Your task to perform on an android device: Play the last video I watched on Youtube Image 0: 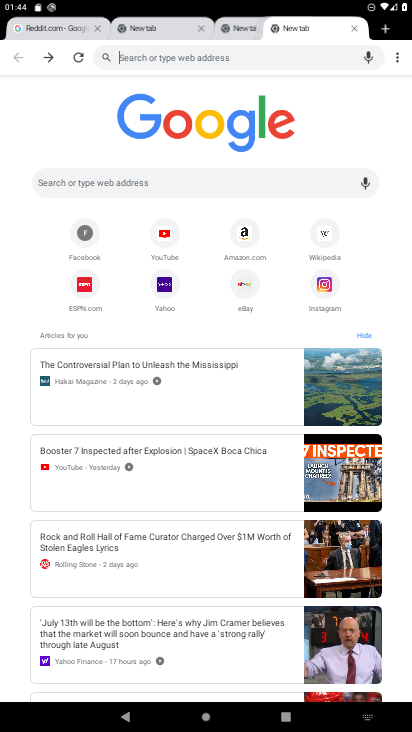
Step 0: press home button
Your task to perform on an android device: Play the last video I watched on Youtube Image 1: 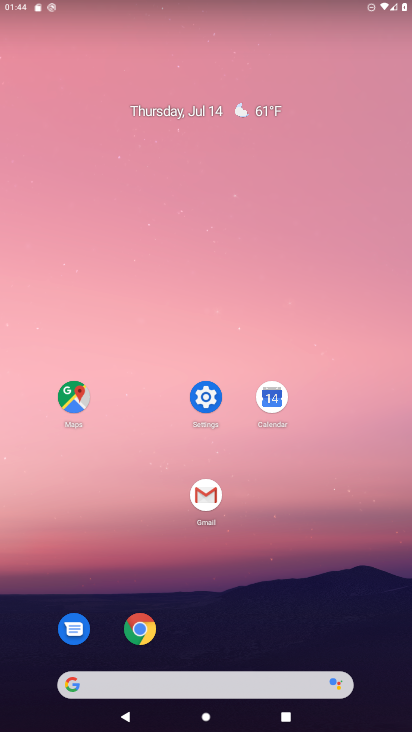
Step 1: drag from (383, 720) to (365, 155)
Your task to perform on an android device: Play the last video I watched on Youtube Image 2: 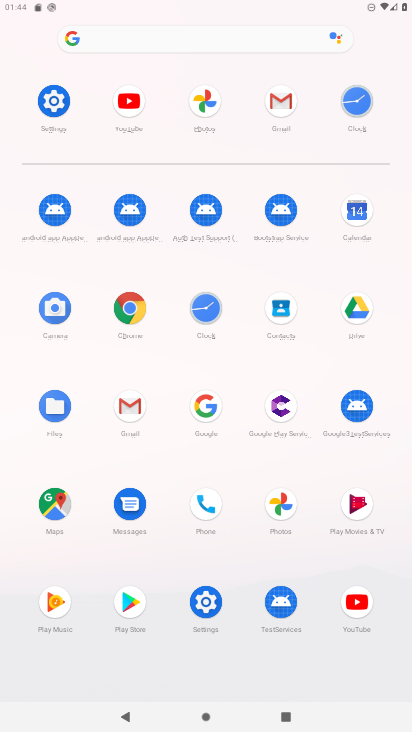
Step 2: click (350, 614)
Your task to perform on an android device: Play the last video I watched on Youtube Image 3: 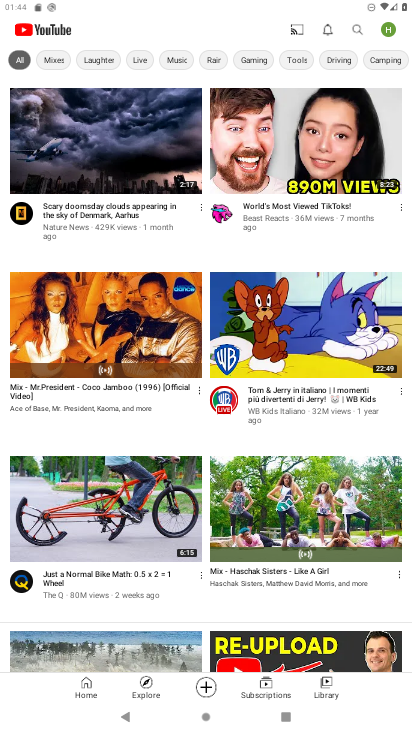
Step 3: drag from (283, 345) to (258, 511)
Your task to perform on an android device: Play the last video I watched on Youtube Image 4: 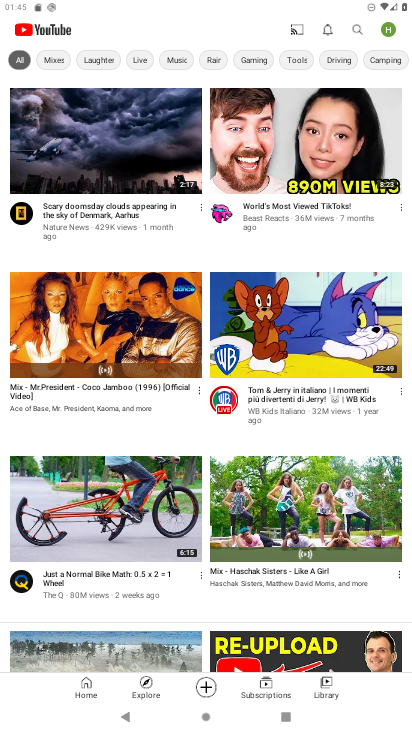
Step 4: click (317, 691)
Your task to perform on an android device: Play the last video I watched on Youtube Image 5: 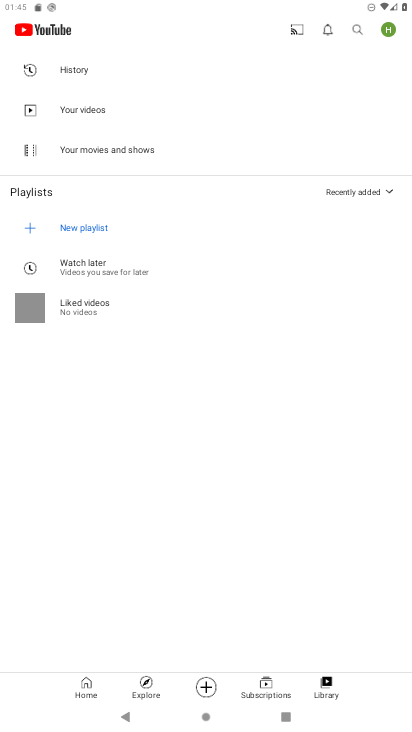
Step 5: click (61, 72)
Your task to perform on an android device: Play the last video I watched on Youtube Image 6: 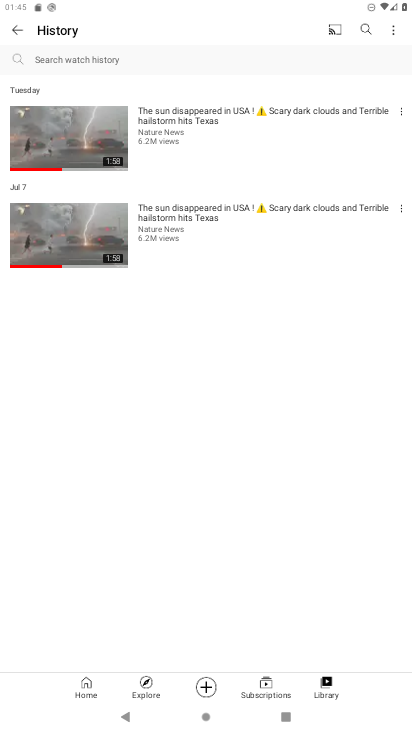
Step 6: click (93, 140)
Your task to perform on an android device: Play the last video I watched on Youtube Image 7: 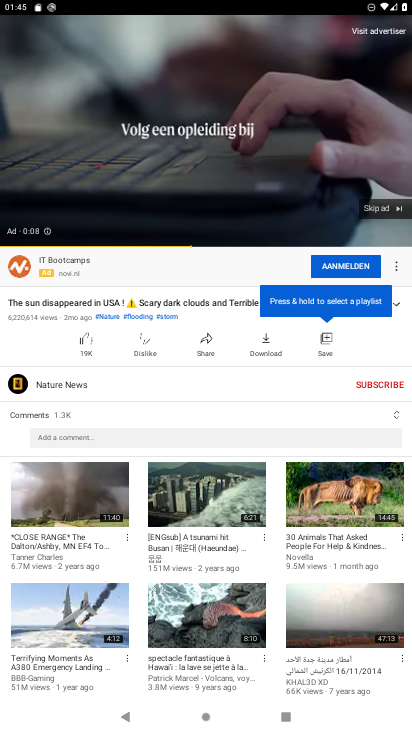
Step 7: click (385, 209)
Your task to perform on an android device: Play the last video I watched on Youtube Image 8: 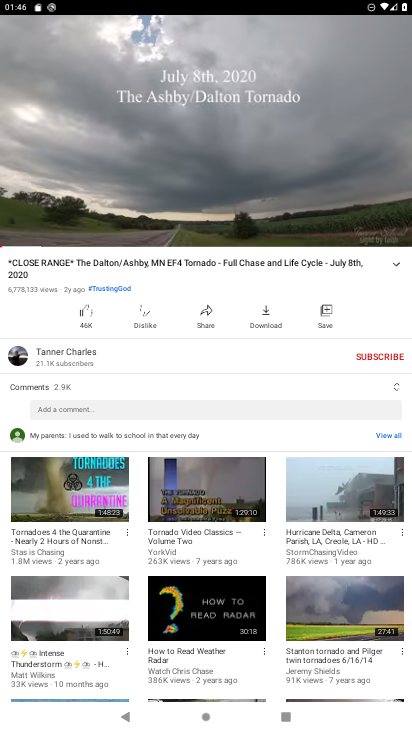
Step 8: task complete